Your task to perform on an android device: Go to wifi settings Image 0: 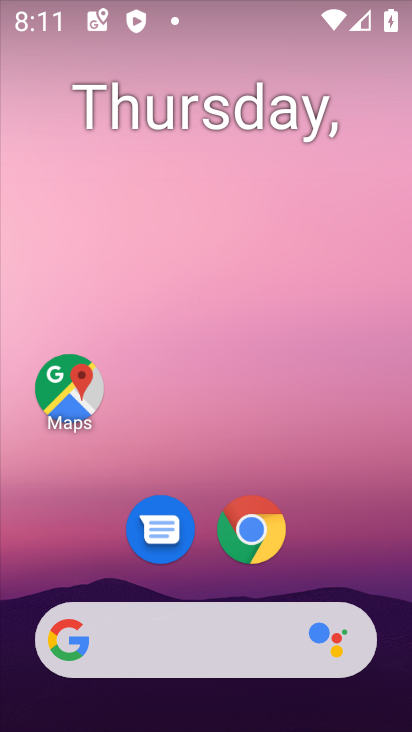
Step 0: drag from (197, 694) to (196, 77)
Your task to perform on an android device: Go to wifi settings Image 1: 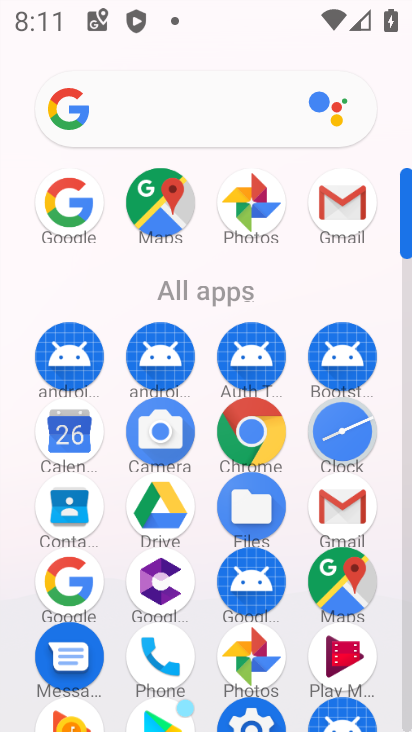
Step 1: click (256, 708)
Your task to perform on an android device: Go to wifi settings Image 2: 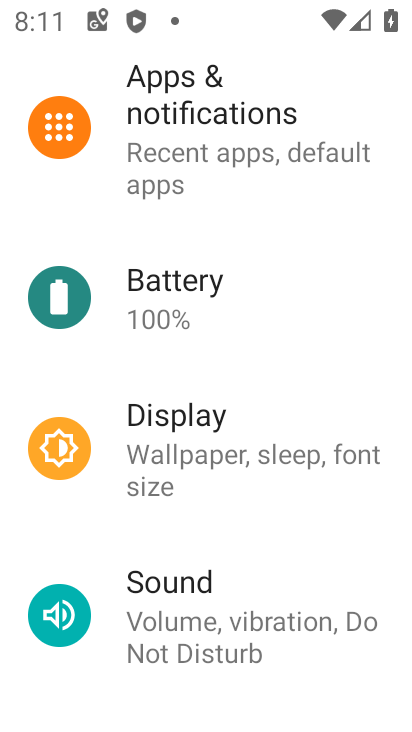
Step 2: drag from (246, 167) to (267, 585)
Your task to perform on an android device: Go to wifi settings Image 3: 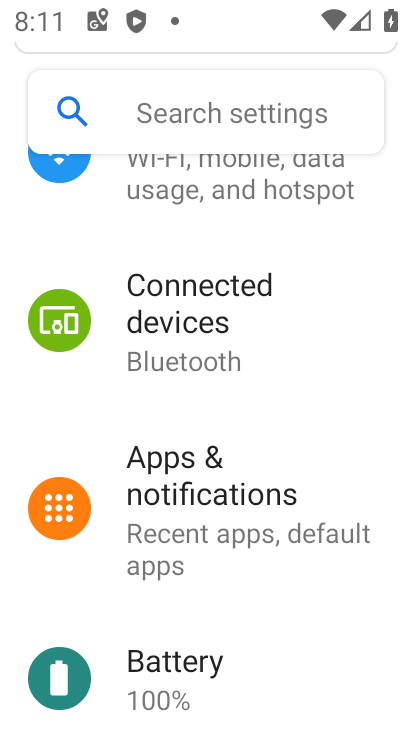
Step 3: drag from (262, 229) to (284, 603)
Your task to perform on an android device: Go to wifi settings Image 4: 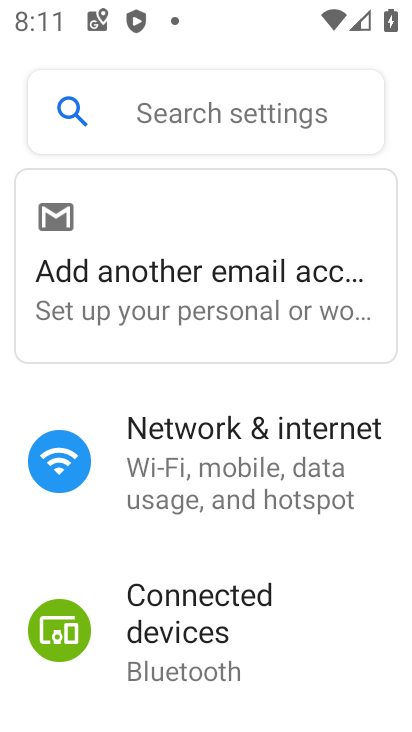
Step 4: click (260, 473)
Your task to perform on an android device: Go to wifi settings Image 5: 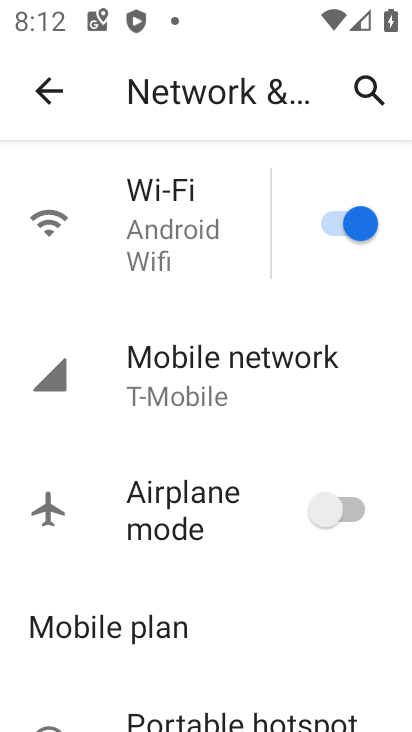
Step 5: click (161, 218)
Your task to perform on an android device: Go to wifi settings Image 6: 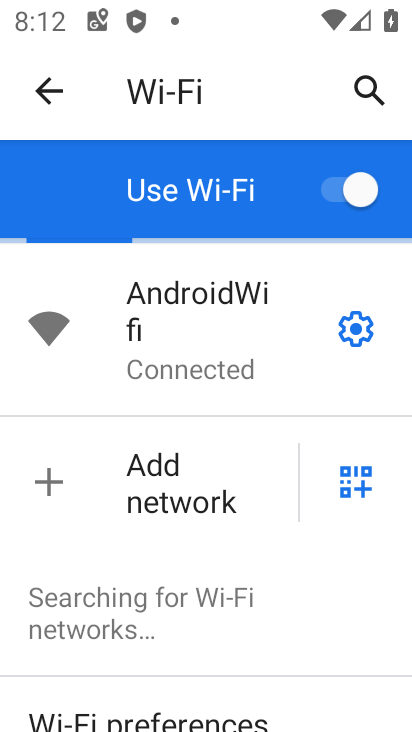
Step 6: task complete